Your task to perform on an android device: turn on javascript in the chrome app Image 0: 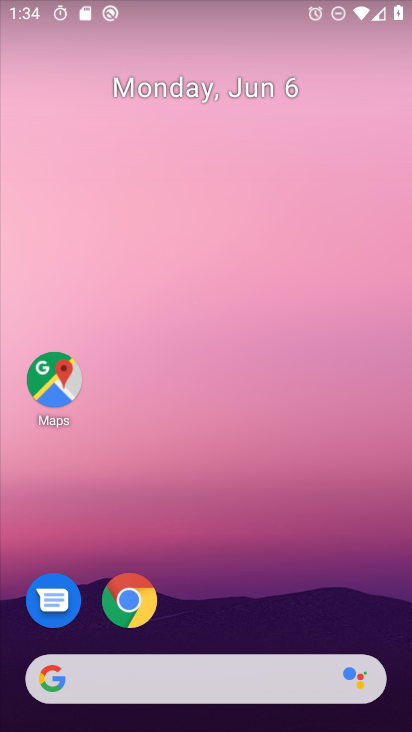
Step 0: click (130, 614)
Your task to perform on an android device: turn on javascript in the chrome app Image 1: 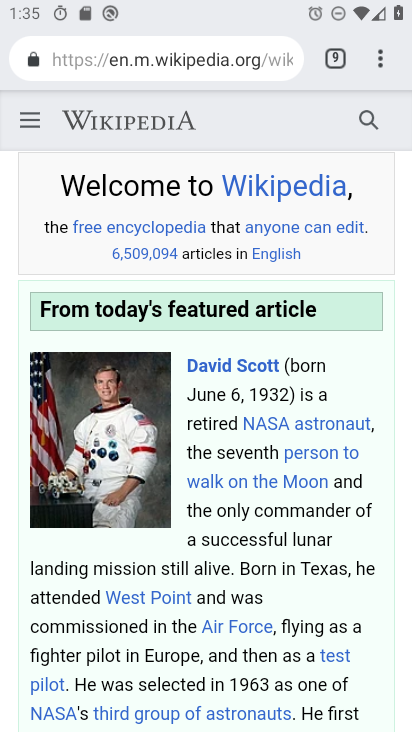
Step 1: click (373, 68)
Your task to perform on an android device: turn on javascript in the chrome app Image 2: 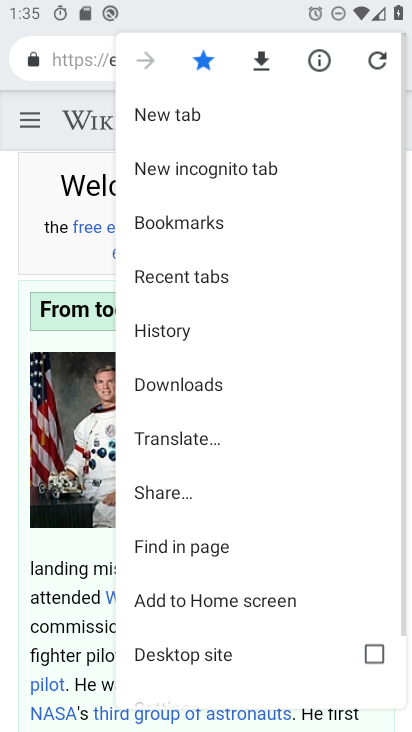
Step 2: drag from (227, 415) to (255, 231)
Your task to perform on an android device: turn on javascript in the chrome app Image 3: 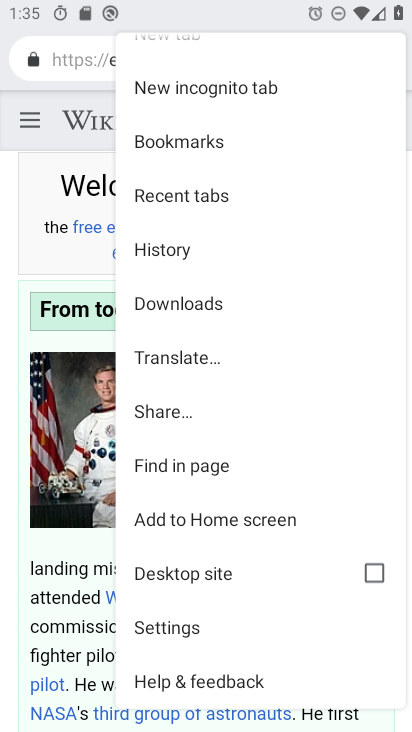
Step 3: click (191, 618)
Your task to perform on an android device: turn on javascript in the chrome app Image 4: 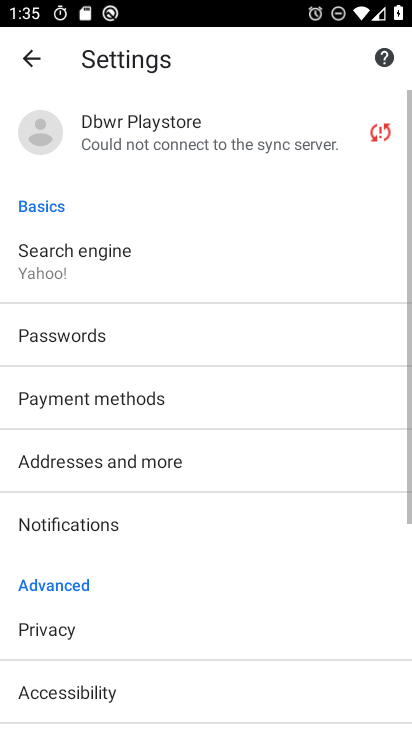
Step 4: drag from (212, 651) to (237, 324)
Your task to perform on an android device: turn on javascript in the chrome app Image 5: 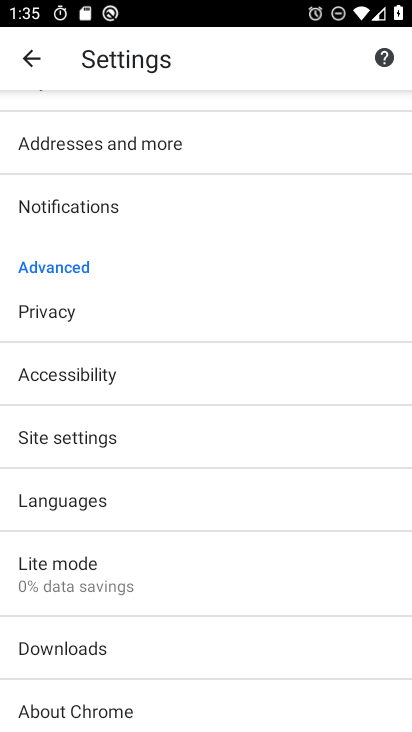
Step 5: drag from (185, 628) to (194, 404)
Your task to perform on an android device: turn on javascript in the chrome app Image 6: 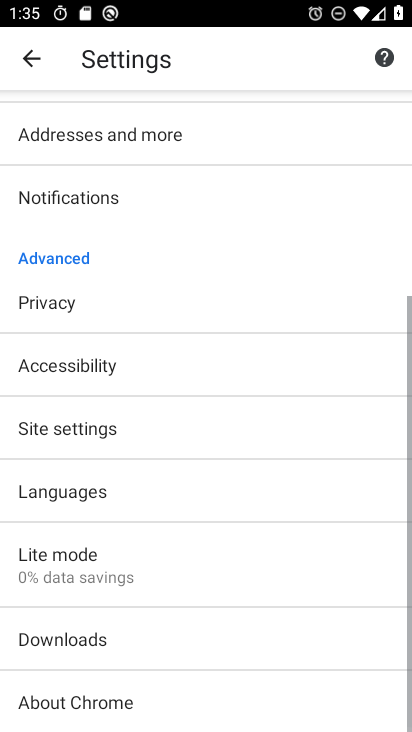
Step 6: click (171, 416)
Your task to perform on an android device: turn on javascript in the chrome app Image 7: 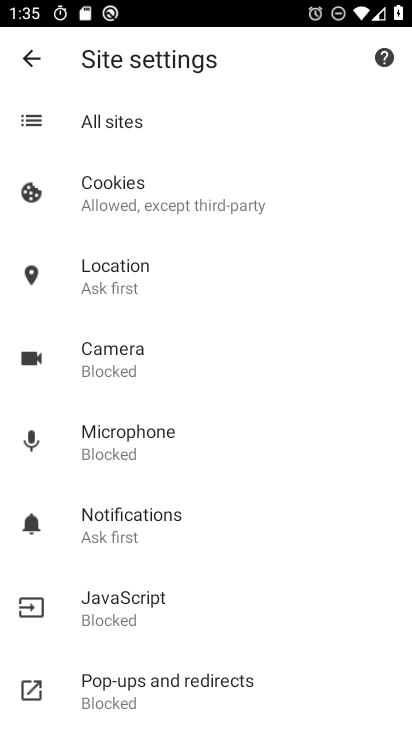
Step 7: click (171, 602)
Your task to perform on an android device: turn on javascript in the chrome app Image 8: 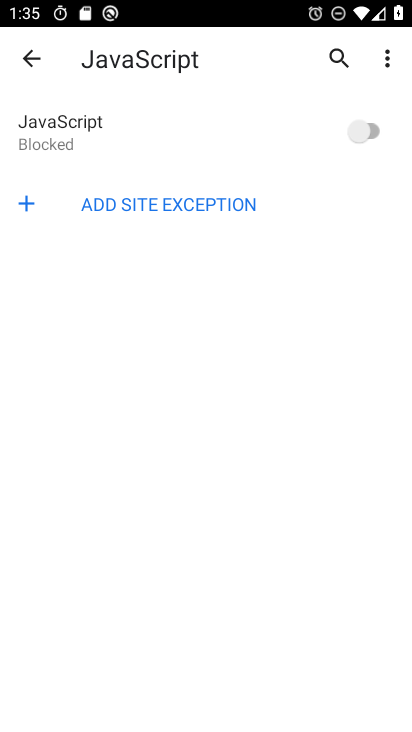
Step 8: click (372, 132)
Your task to perform on an android device: turn on javascript in the chrome app Image 9: 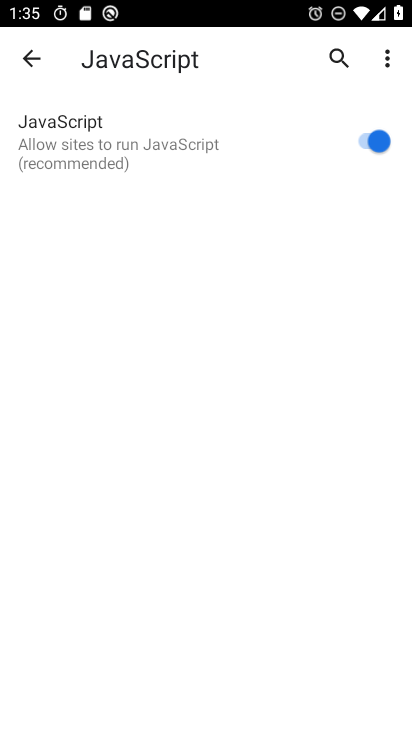
Step 9: task complete